Your task to perform on an android device: Do I have any events tomorrow? Image 0: 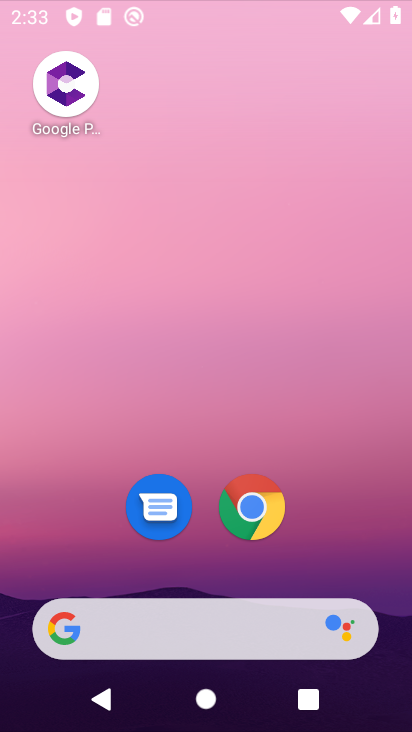
Step 0: click (320, 197)
Your task to perform on an android device: Do I have any events tomorrow? Image 1: 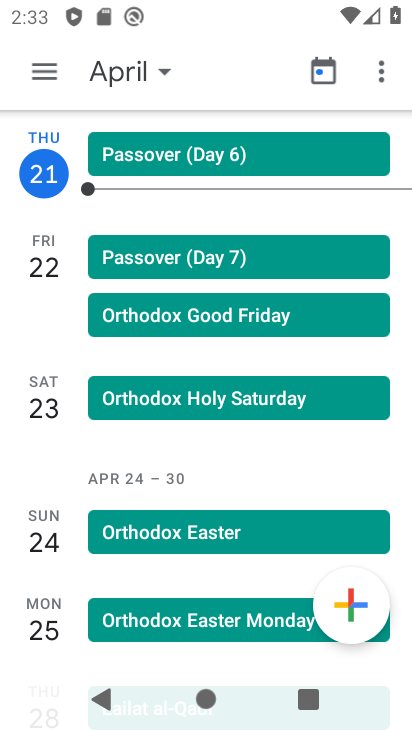
Step 1: click (122, 72)
Your task to perform on an android device: Do I have any events tomorrow? Image 2: 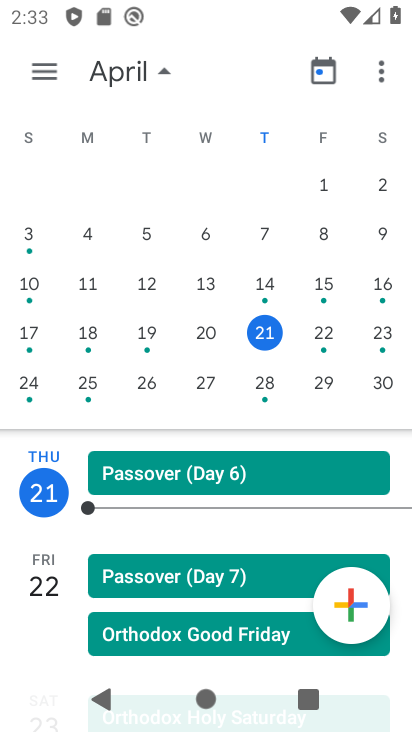
Step 2: click (330, 341)
Your task to perform on an android device: Do I have any events tomorrow? Image 3: 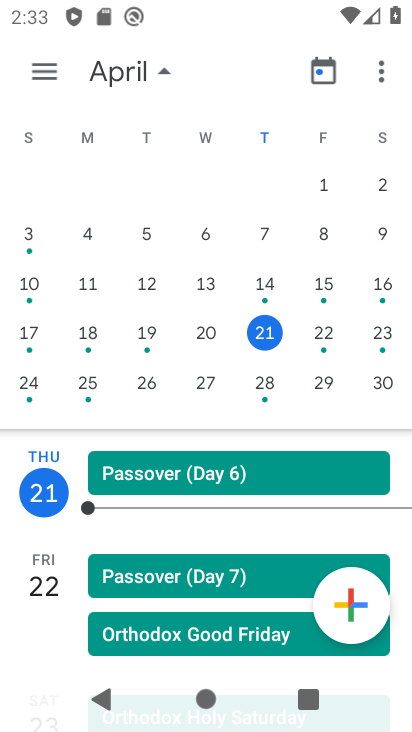
Step 3: click (321, 337)
Your task to perform on an android device: Do I have any events tomorrow? Image 4: 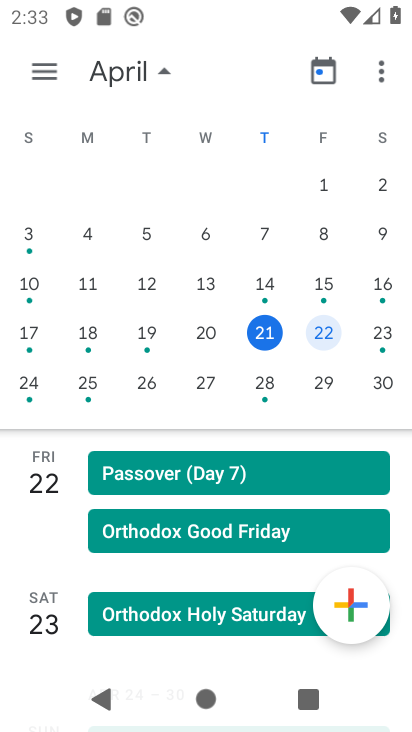
Step 4: task complete